Your task to perform on an android device: Open Android settings Image 0: 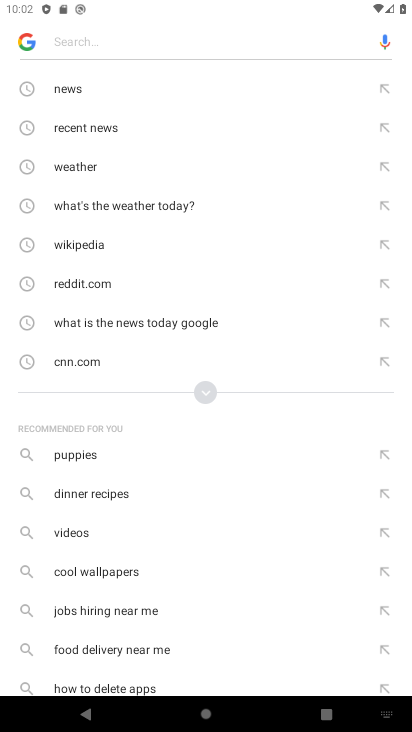
Step 0: press home button
Your task to perform on an android device: Open Android settings Image 1: 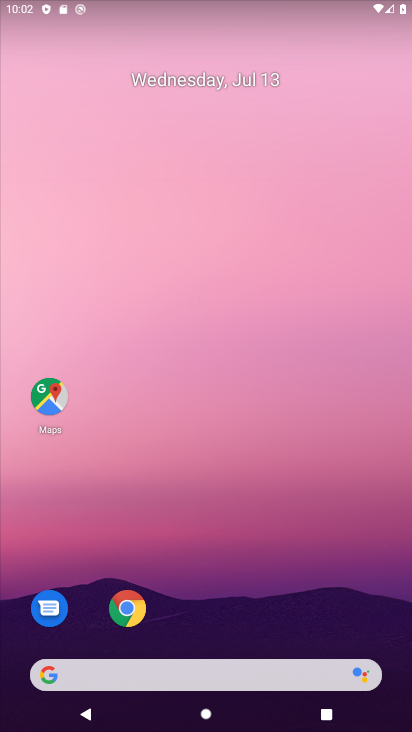
Step 1: drag from (241, 571) to (119, 6)
Your task to perform on an android device: Open Android settings Image 2: 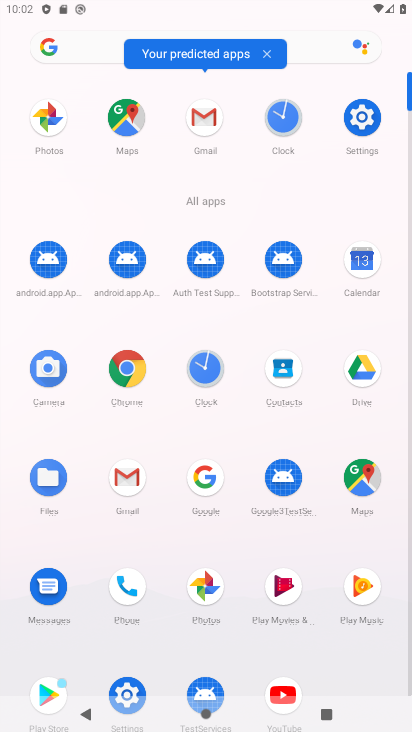
Step 2: click (123, 678)
Your task to perform on an android device: Open Android settings Image 3: 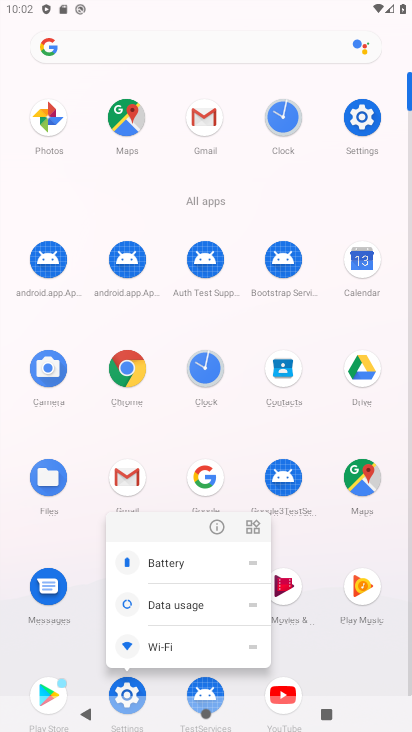
Step 3: click (122, 689)
Your task to perform on an android device: Open Android settings Image 4: 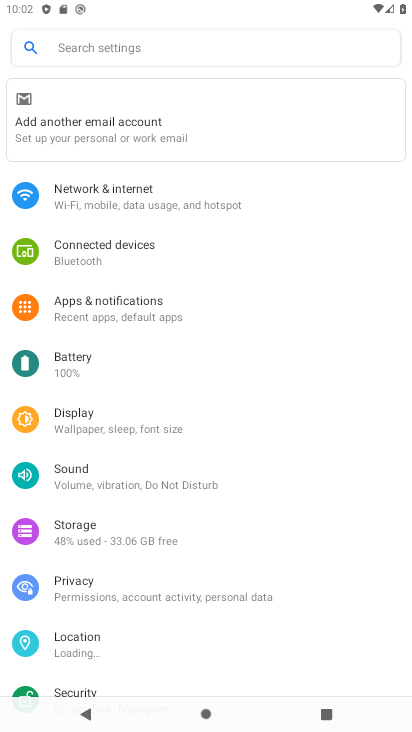
Step 4: drag from (141, 652) to (249, 164)
Your task to perform on an android device: Open Android settings Image 5: 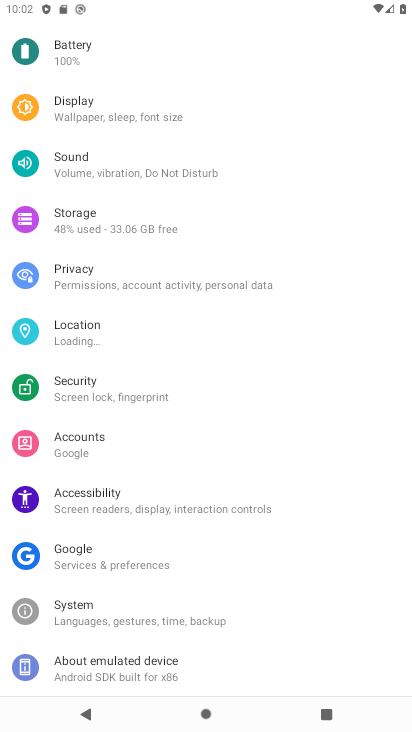
Step 5: click (134, 661)
Your task to perform on an android device: Open Android settings Image 6: 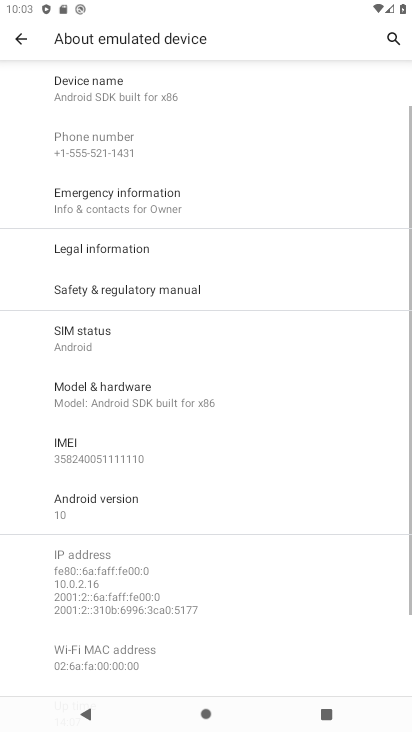
Step 6: click (100, 496)
Your task to perform on an android device: Open Android settings Image 7: 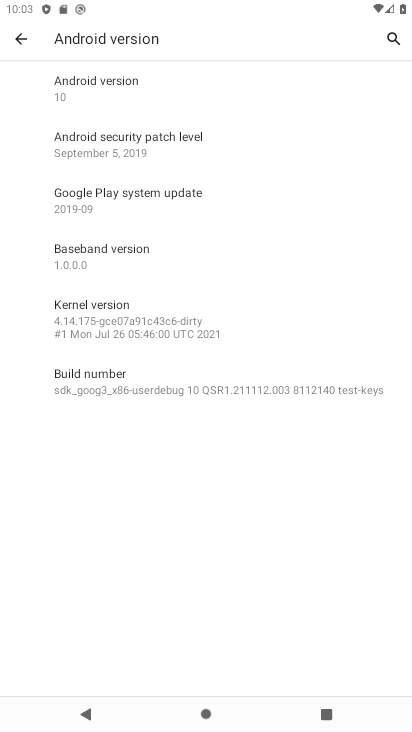
Step 7: task complete